Your task to perform on an android device: turn off wifi Image 0: 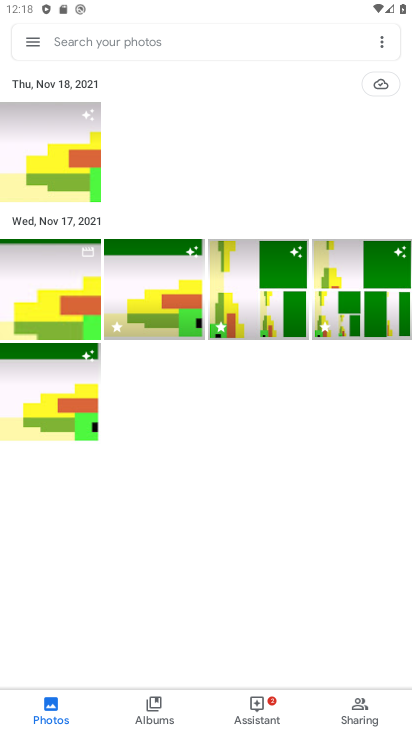
Step 0: press home button
Your task to perform on an android device: turn off wifi Image 1: 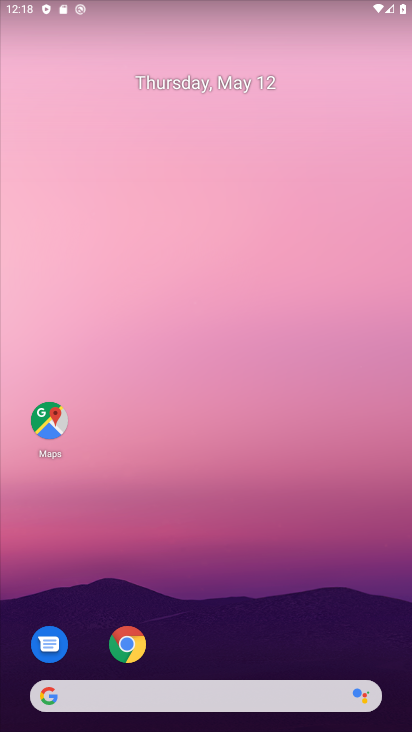
Step 1: drag from (207, 468) to (198, 34)
Your task to perform on an android device: turn off wifi Image 2: 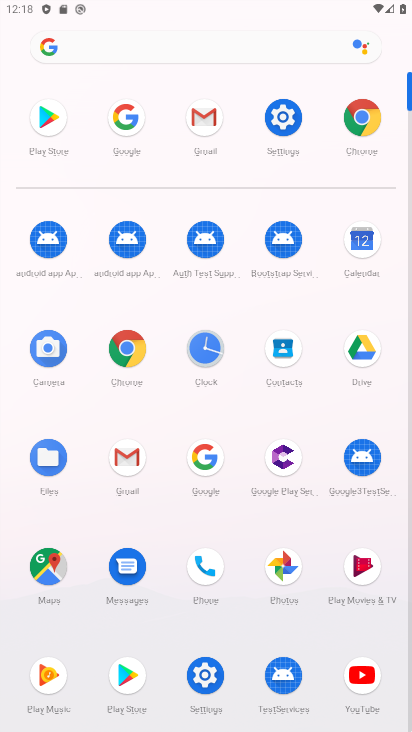
Step 2: click (294, 127)
Your task to perform on an android device: turn off wifi Image 3: 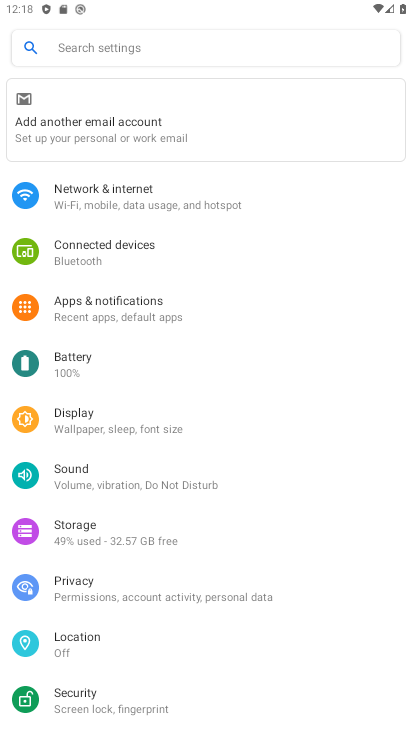
Step 3: click (207, 204)
Your task to perform on an android device: turn off wifi Image 4: 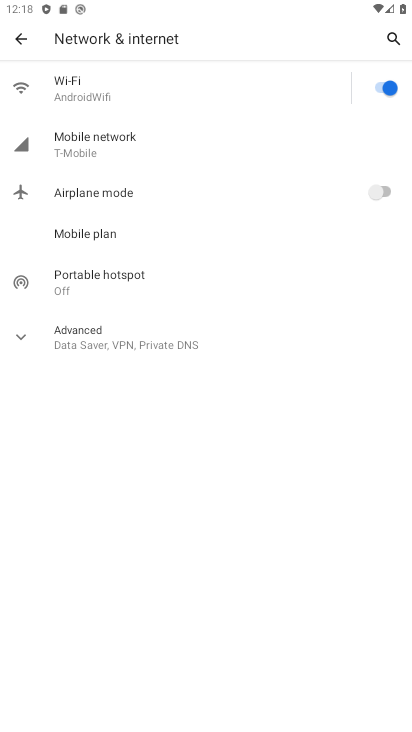
Step 4: click (385, 87)
Your task to perform on an android device: turn off wifi Image 5: 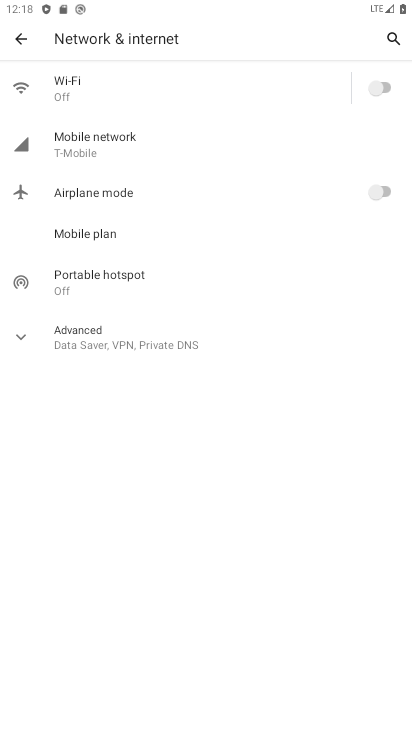
Step 5: task complete